Your task to perform on an android device: Open maps Image 0: 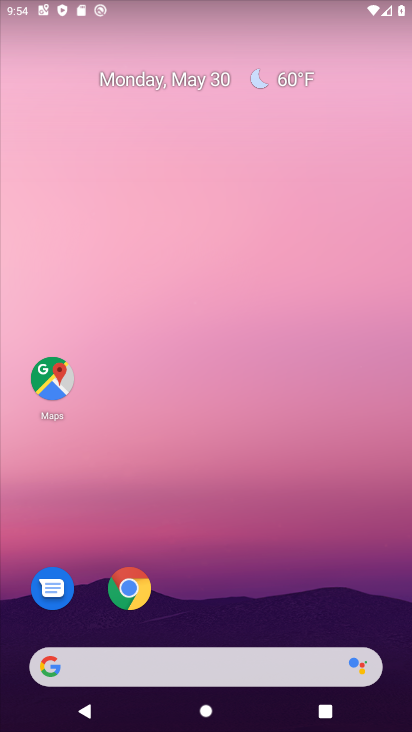
Step 0: click (54, 359)
Your task to perform on an android device: Open maps Image 1: 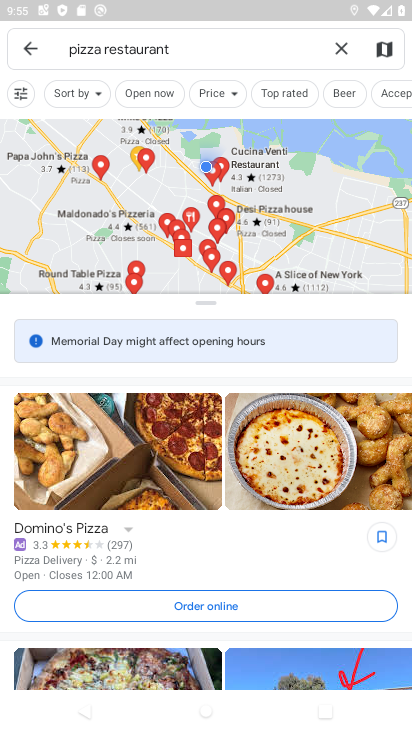
Step 1: click (36, 47)
Your task to perform on an android device: Open maps Image 2: 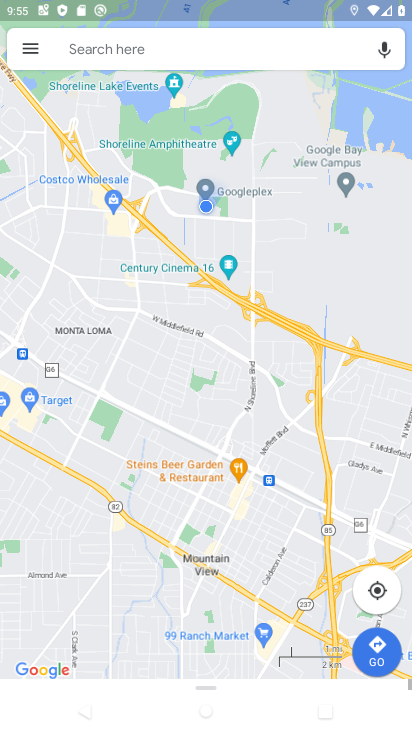
Step 2: task complete